Your task to perform on an android device: change the clock display to digital Image 0: 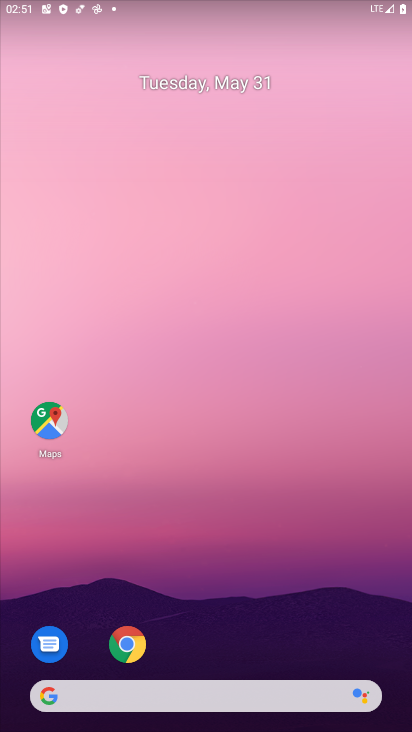
Step 0: drag from (339, 583) to (261, 129)
Your task to perform on an android device: change the clock display to digital Image 1: 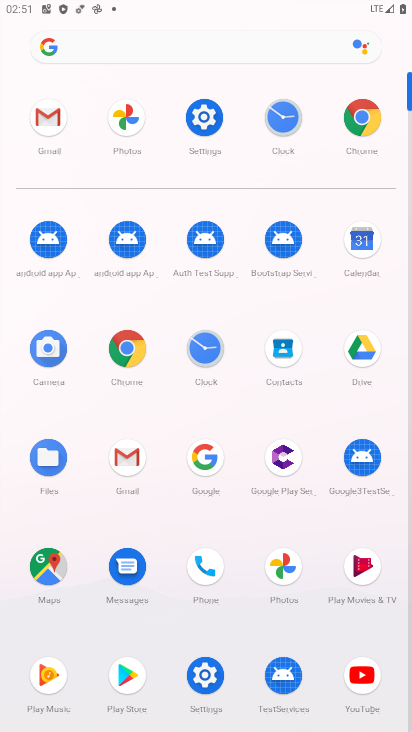
Step 1: click (283, 111)
Your task to perform on an android device: change the clock display to digital Image 2: 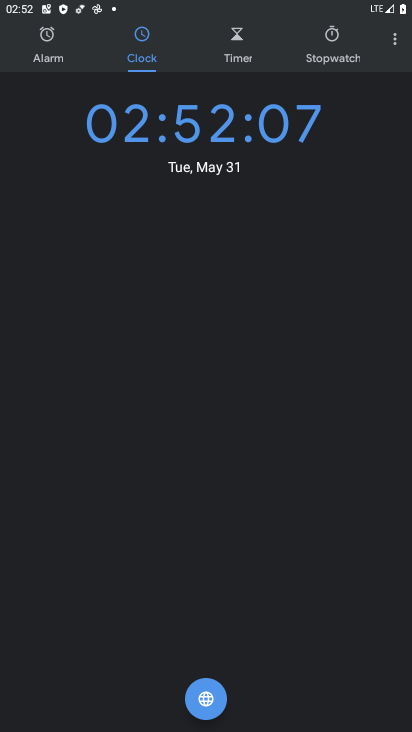
Step 2: task complete